Your task to perform on an android device: Turn off the flashlight Image 0: 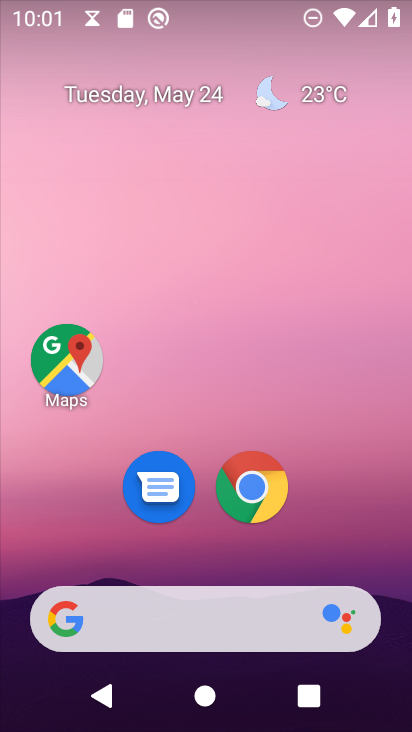
Step 0: drag from (4, 585) to (114, 395)
Your task to perform on an android device: Turn off the flashlight Image 1: 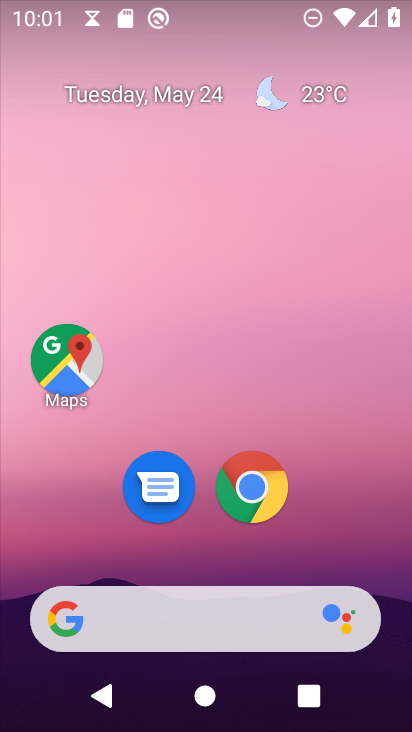
Step 1: click (26, 515)
Your task to perform on an android device: Turn off the flashlight Image 2: 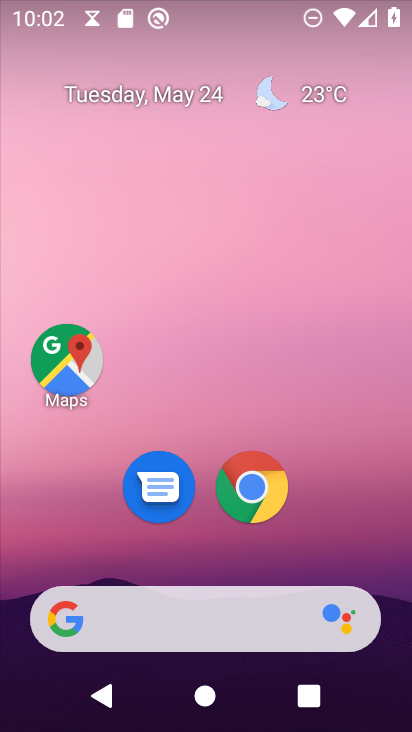
Step 2: drag from (93, 443) to (274, 52)
Your task to perform on an android device: Turn off the flashlight Image 3: 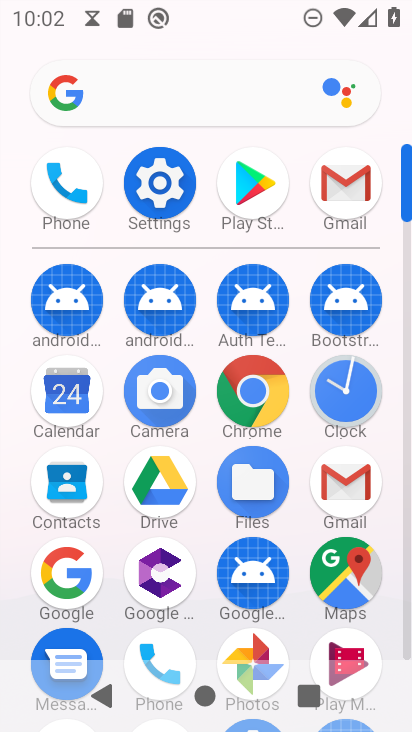
Step 3: click (165, 184)
Your task to perform on an android device: Turn off the flashlight Image 4: 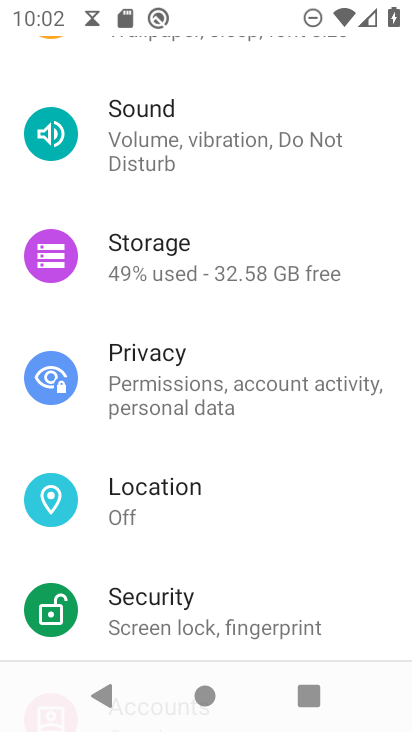
Step 4: task complete